Your task to perform on an android device: toggle location history Image 0: 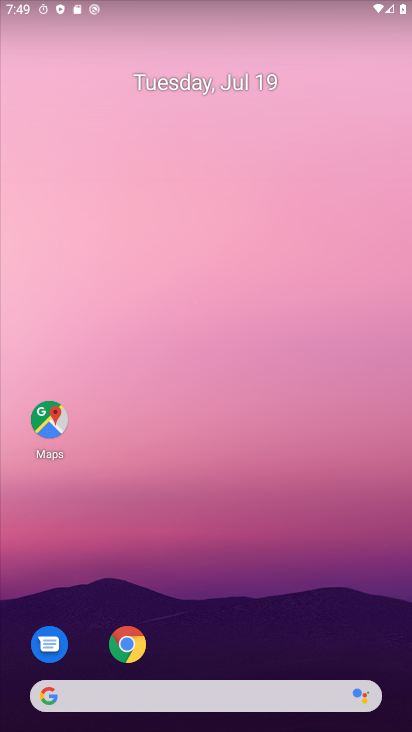
Step 0: drag from (31, 673) to (288, 159)
Your task to perform on an android device: toggle location history Image 1: 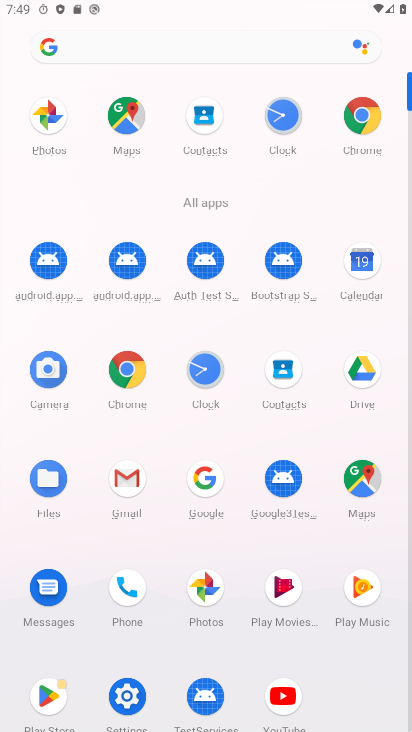
Step 1: click (111, 702)
Your task to perform on an android device: toggle location history Image 2: 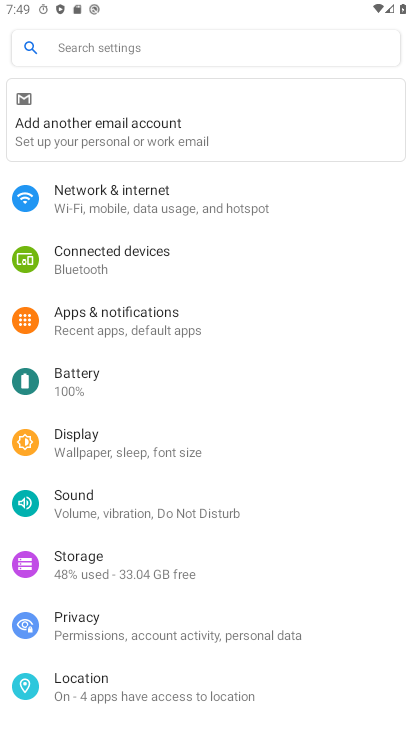
Step 2: click (62, 679)
Your task to perform on an android device: toggle location history Image 3: 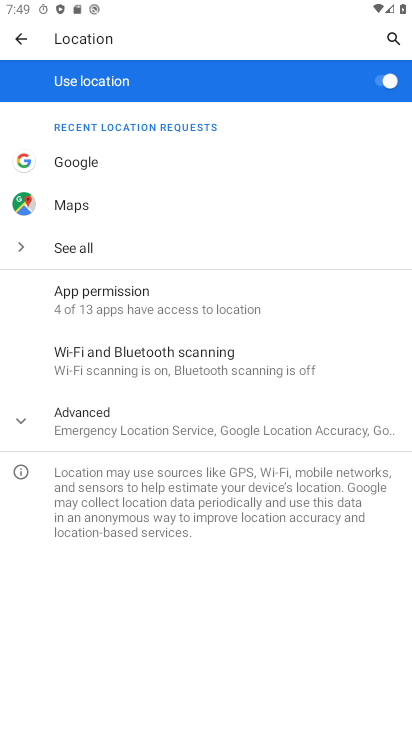
Step 3: task complete